Your task to perform on an android device: Toggle the flashlight Image 0: 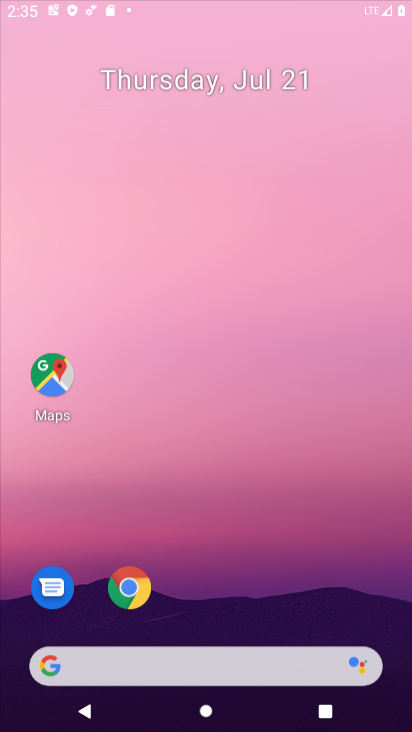
Step 0: click (236, 116)
Your task to perform on an android device: Toggle the flashlight Image 1: 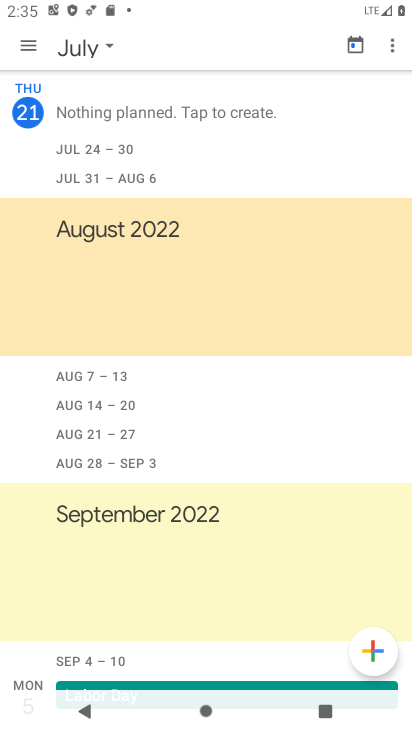
Step 1: drag from (209, 543) to (248, 154)
Your task to perform on an android device: Toggle the flashlight Image 2: 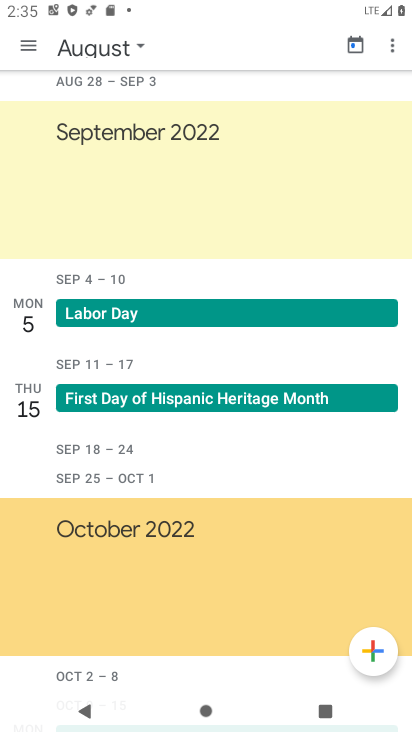
Step 2: click (114, 52)
Your task to perform on an android device: Toggle the flashlight Image 3: 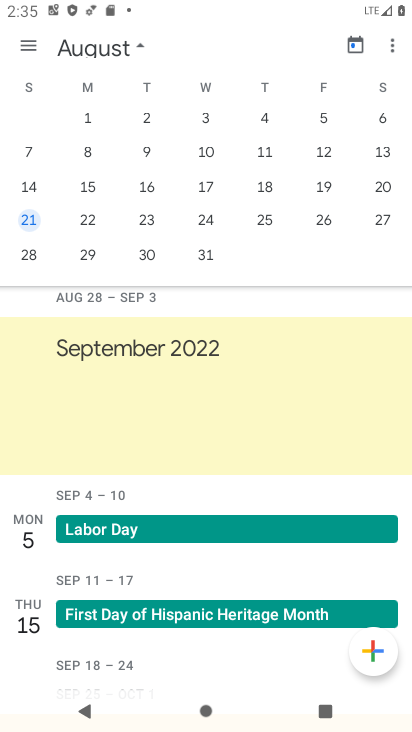
Step 3: press home button
Your task to perform on an android device: Toggle the flashlight Image 4: 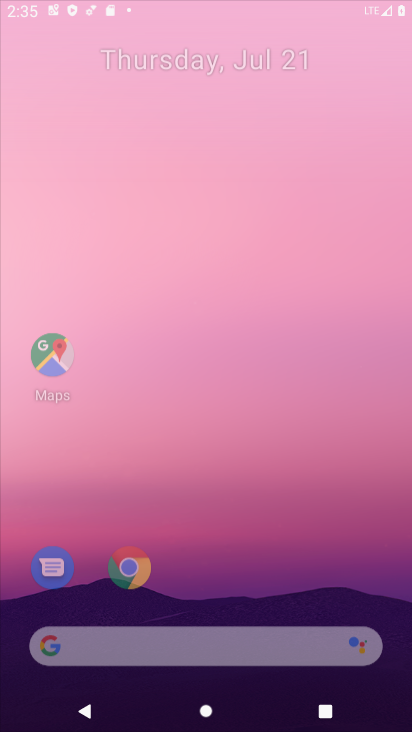
Step 4: drag from (234, 630) to (315, 214)
Your task to perform on an android device: Toggle the flashlight Image 5: 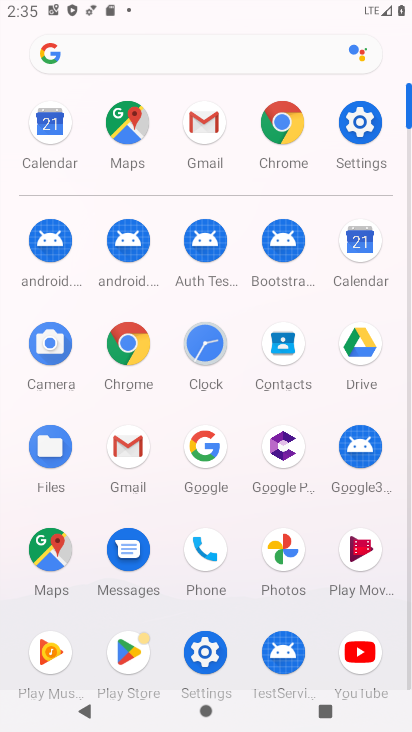
Step 5: click (369, 125)
Your task to perform on an android device: Toggle the flashlight Image 6: 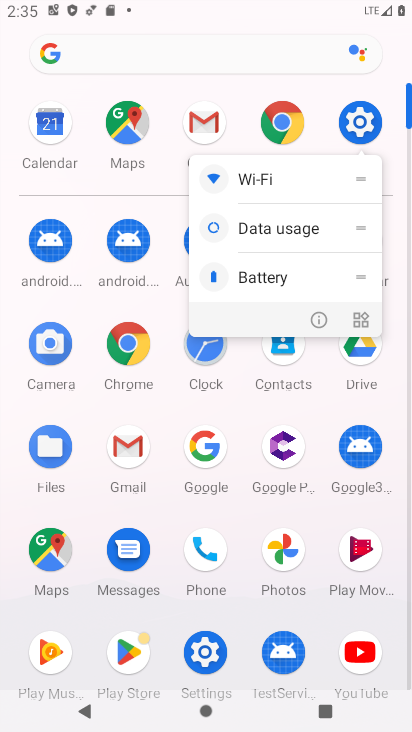
Step 6: click (320, 324)
Your task to perform on an android device: Toggle the flashlight Image 7: 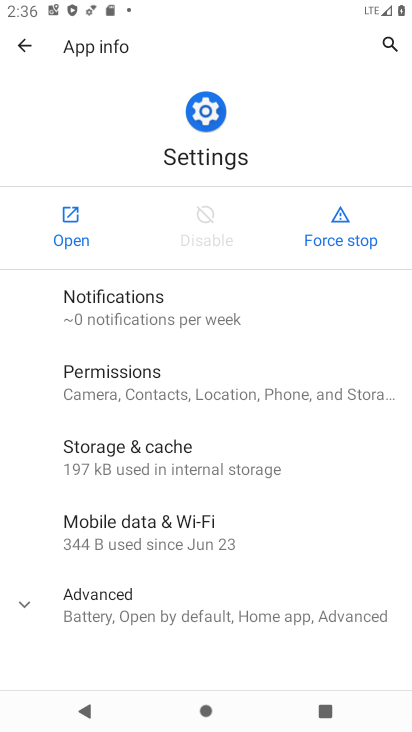
Step 7: click (68, 237)
Your task to perform on an android device: Toggle the flashlight Image 8: 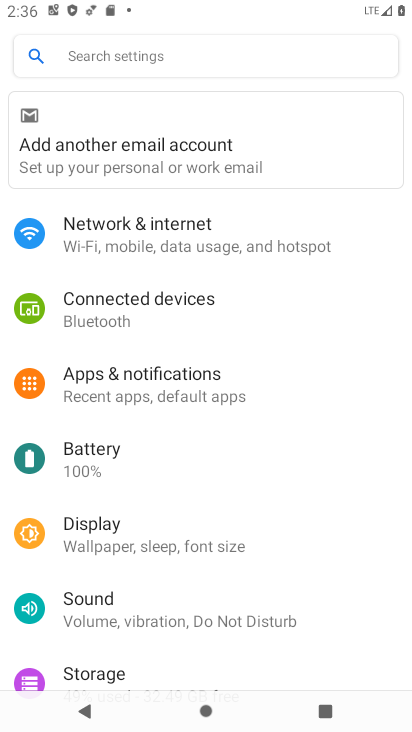
Step 8: click (181, 250)
Your task to perform on an android device: Toggle the flashlight Image 9: 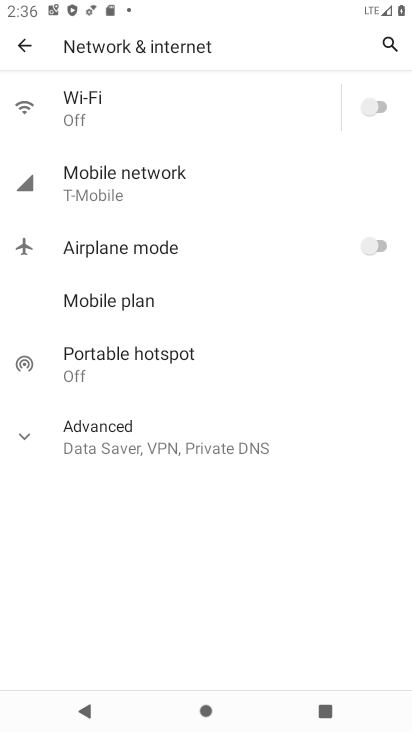
Step 9: click (189, 242)
Your task to perform on an android device: Toggle the flashlight Image 10: 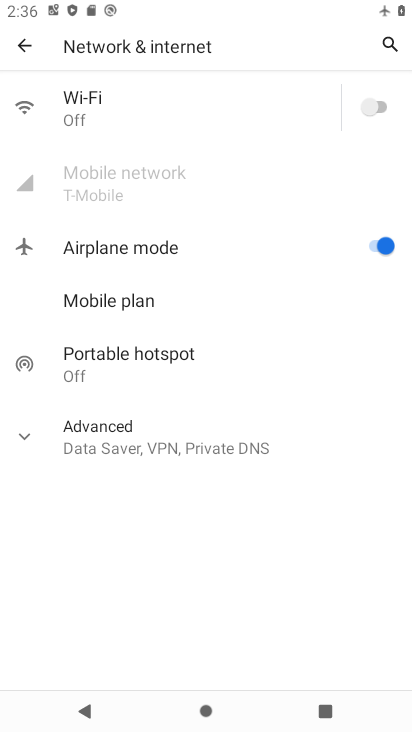
Step 10: task complete